Your task to perform on an android device: Open the stopwatch Image 0: 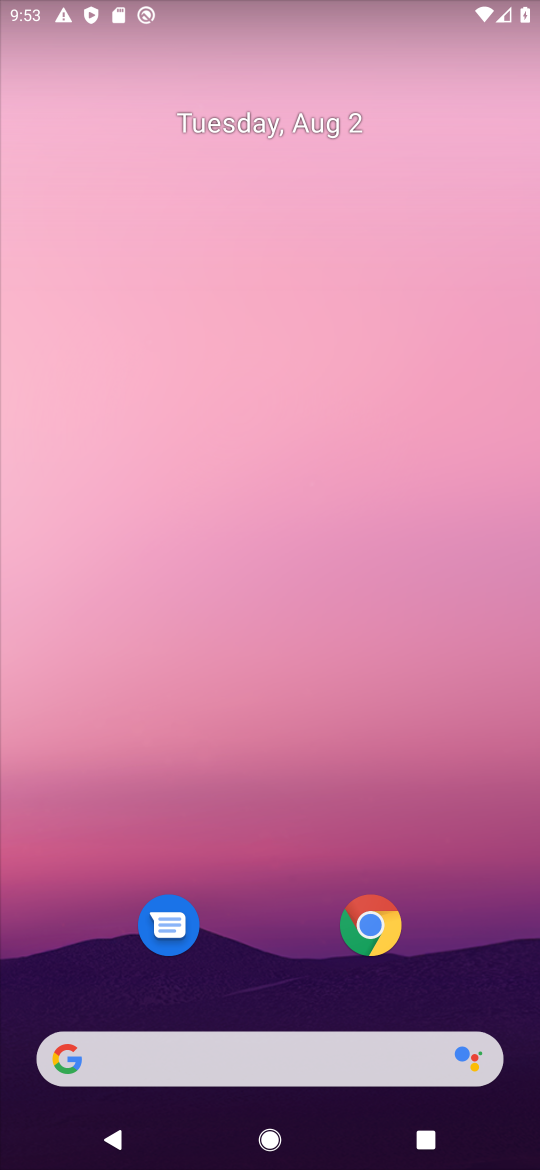
Step 0: drag from (484, 938) to (400, 27)
Your task to perform on an android device: Open the stopwatch Image 1: 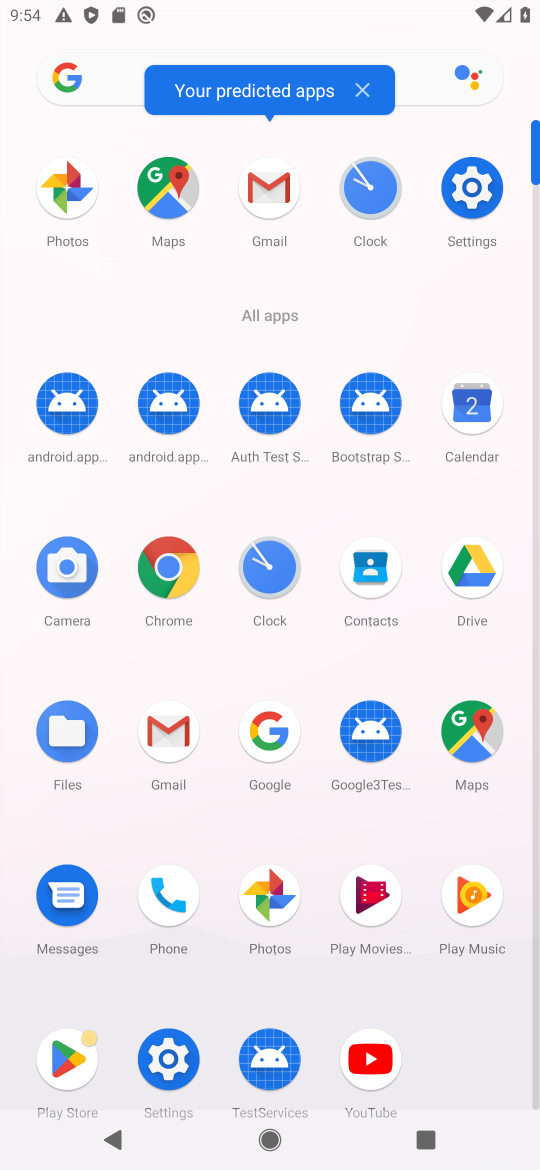
Step 1: click (376, 187)
Your task to perform on an android device: Open the stopwatch Image 2: 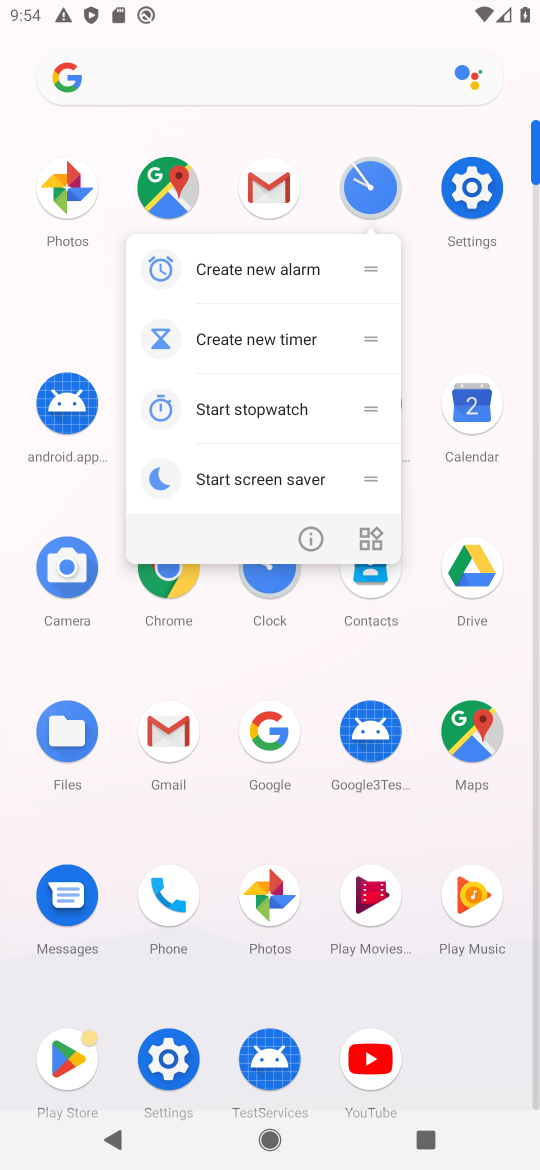
Step 2: click (370, 198)
Your task to perform on an android device: Open the stopwatch Image 3: 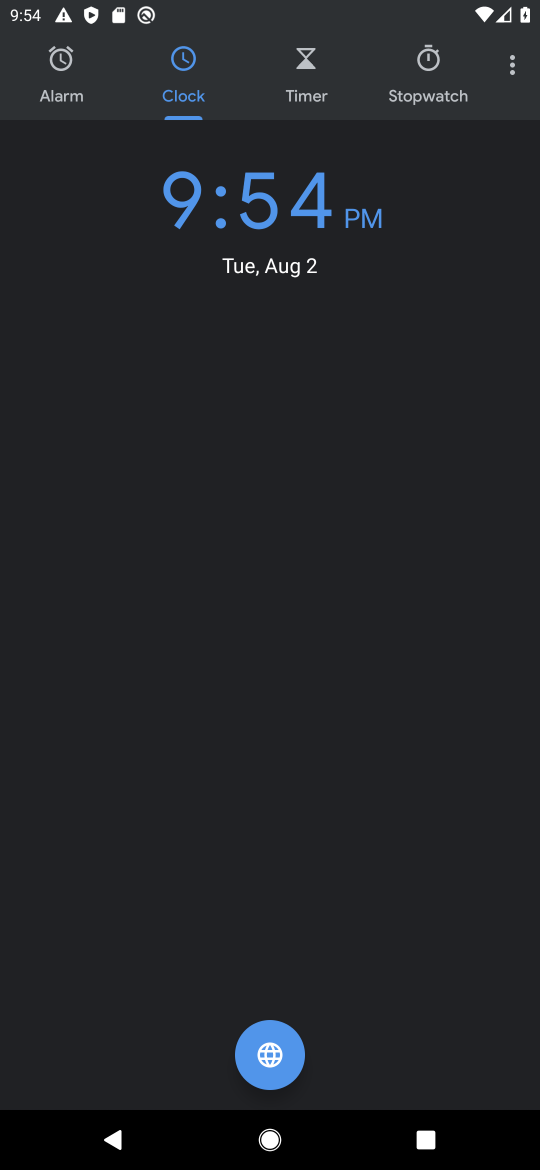
Step 3: click (445, 74)
Your task to perform on an android device: Open the stopwatch Image 4: 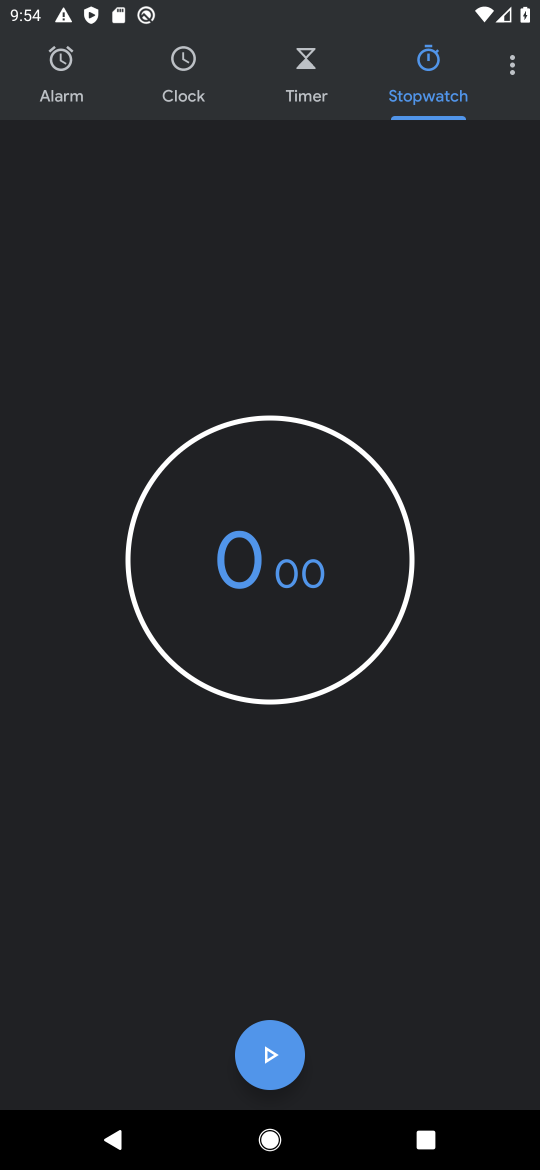
Step 4: task complete